Your task to perform on an android device: toggle notification dots Image 0: 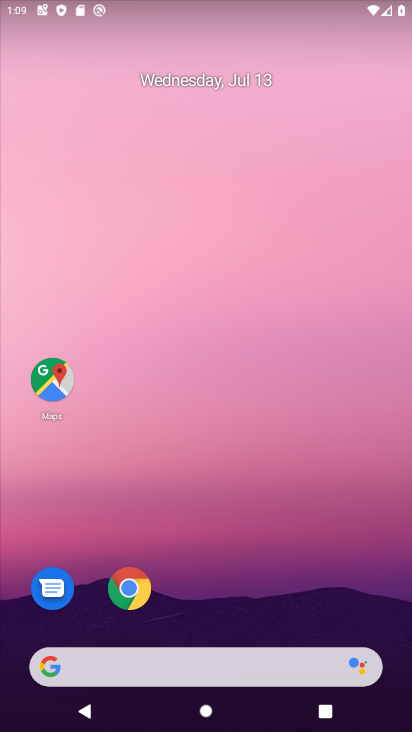
Step 0: drag from (210, 597) to (212, 233)
Your task to perform on an android device: toggle notification dots Image 1: 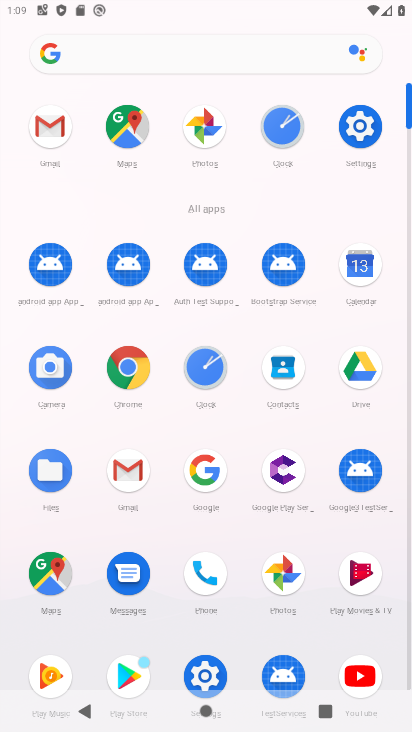
Step 1: click (349, 120)
Your task to perform on an android device: toggle notification dots Image 2: 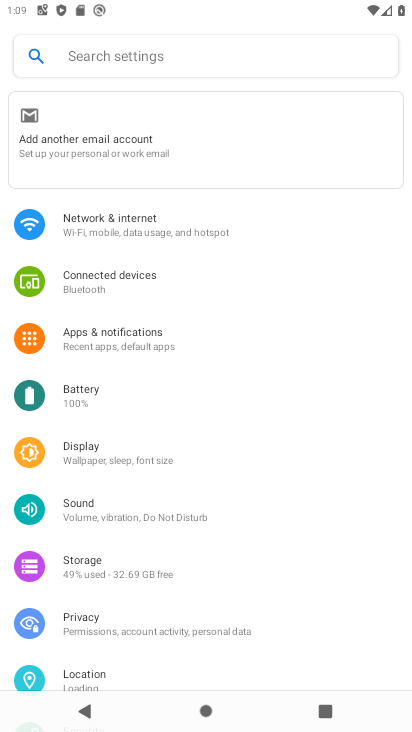
Step 2: click (121, 340)
Your task to perform on an android device: toggle notification dots Image 3: 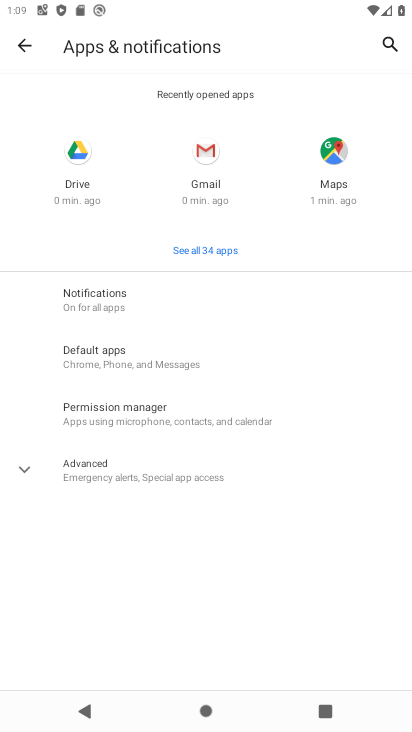
Step 3: click (94, 300)
Your task to perform on an android device: toggle notification dots Image 4: 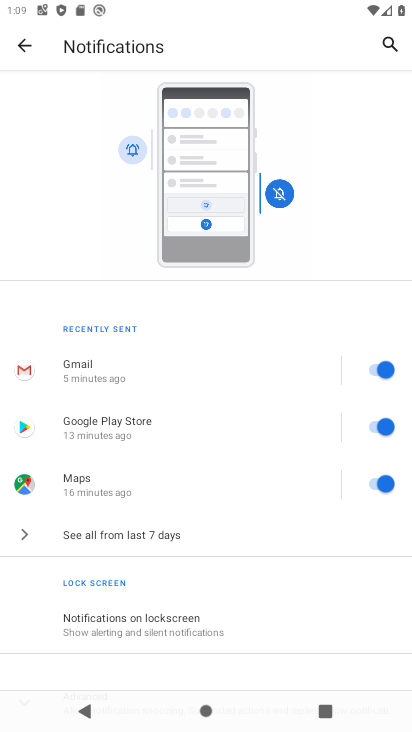
Step 4: drag from (214, 645) to (221, 240)
Your task to perform on an android device: toggle notification dots Image 5: 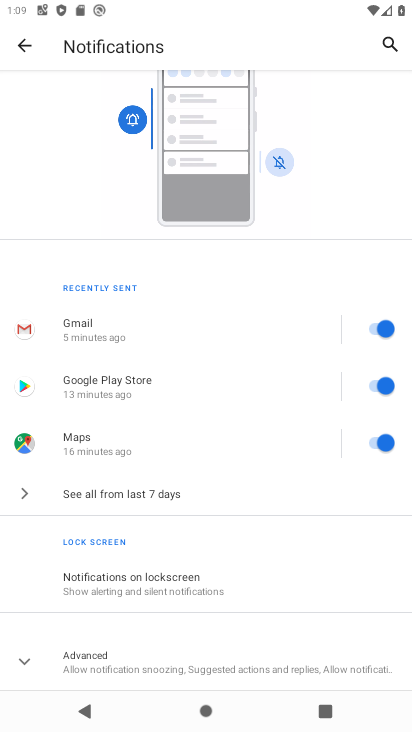
Step 5: click (82, 667)
Your task to perform on an android device: toggle notification dots Image 6: 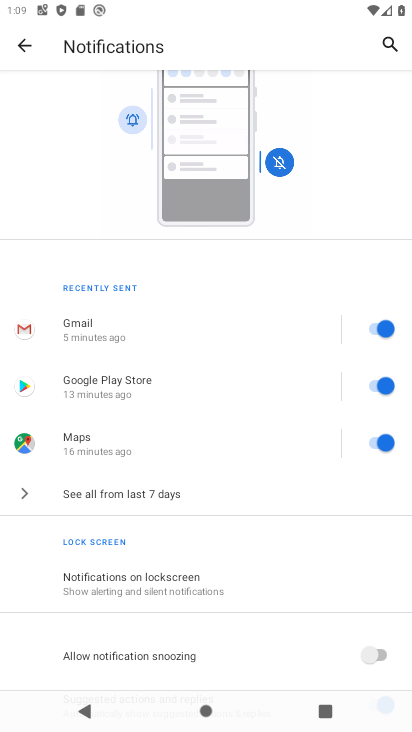
Step 6: drag from (229, 614) to (238, 294)
Your task to perform on an android device: toggle notification dots Image 7: 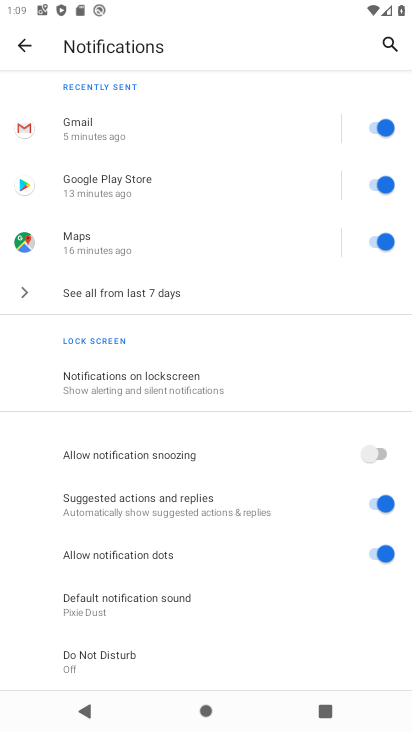
Step 7: click (382, 552)
Your task to perform on an android device: toggle notification dots Image 8: 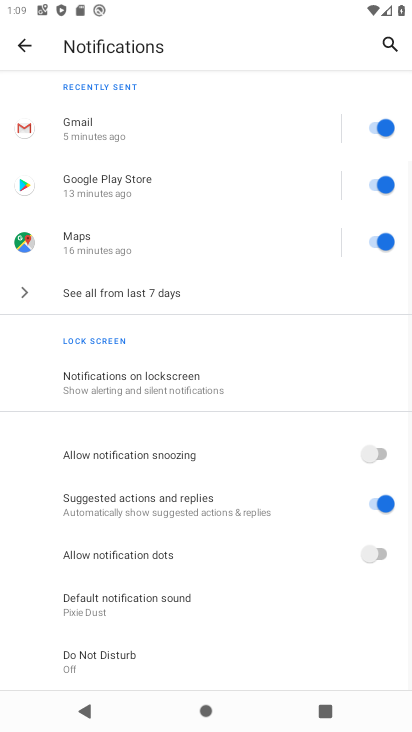
Step 8: task complete